Your task to perform on an android device: Search for dell xps on costco, select the first entry, add it to the cart, then select checkout. Image 0: 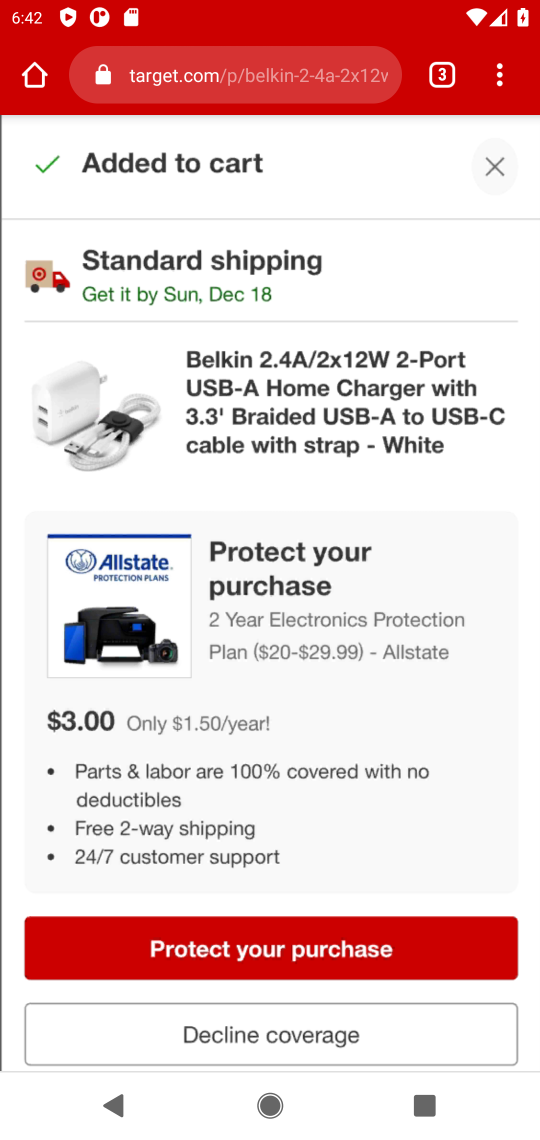
Step 0: click (228, 998)
Your task to perform on an android device: Search for dell xps on costco, select the first entry, add it to the cart, then select checkout. Image 1: 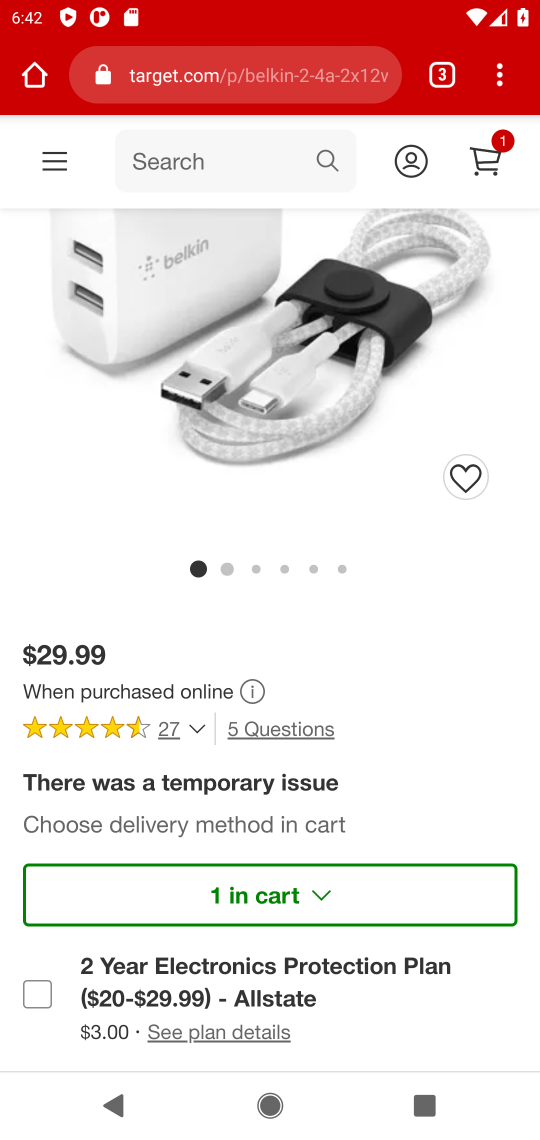
Step 1: press home button
Your task to perform on an android device: Search for dell xps on costco, select the first entry, add it to the cart, then select checkout. Image 2: 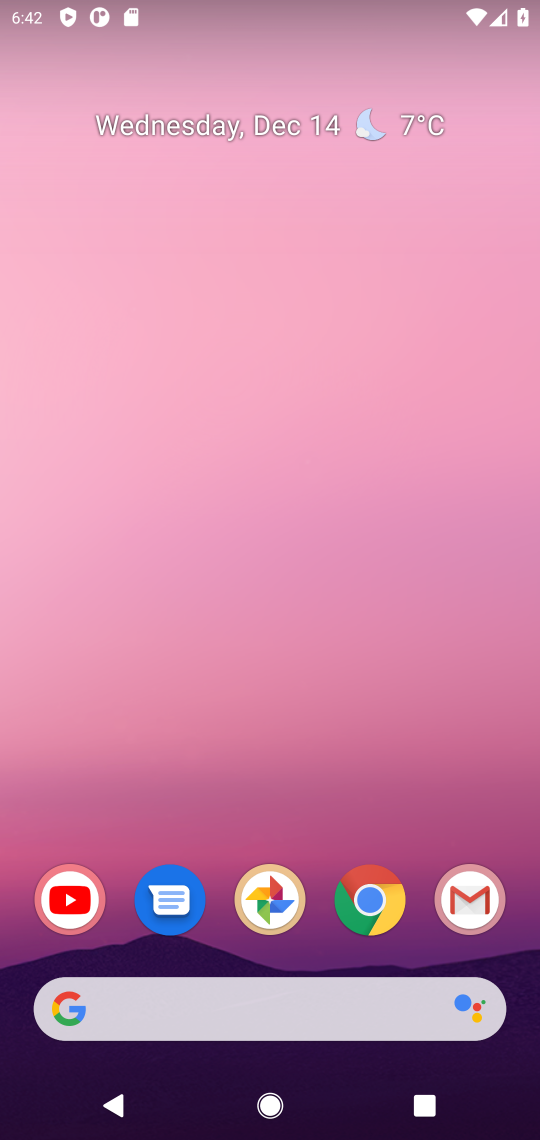
Step 2: click (217, 1019)
Your task to perform on an android device: Search for dell xps on costco, select the first entry, add it to the cart, then select checkout. Image 3: 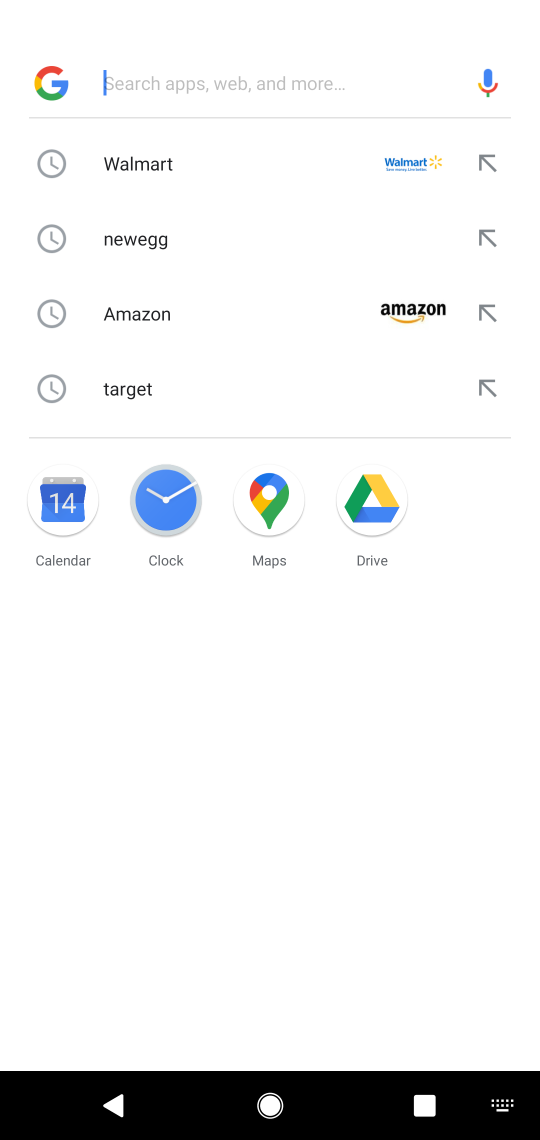
Step 3: type "costco"
Your task to perform on an android device: Search for dell xps on costco, select the first entry, add it to the cart, then select checkout. Image 4: 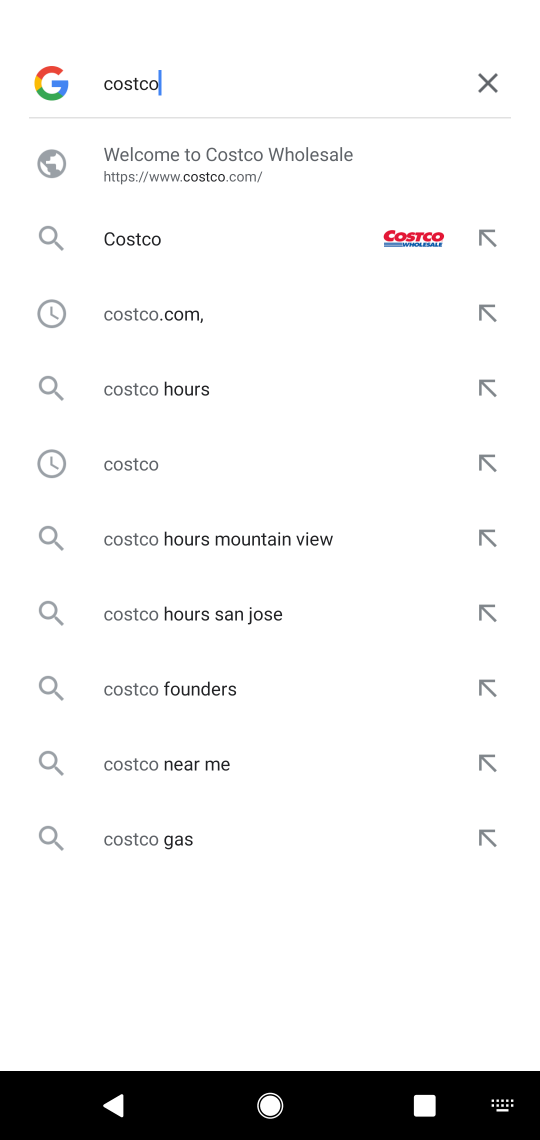
Step 4: click (291, 239)
Your task to perform on an android device: Search for dell xps on costco, select the first entry, add it to the cart, then select checkout. Image 5: 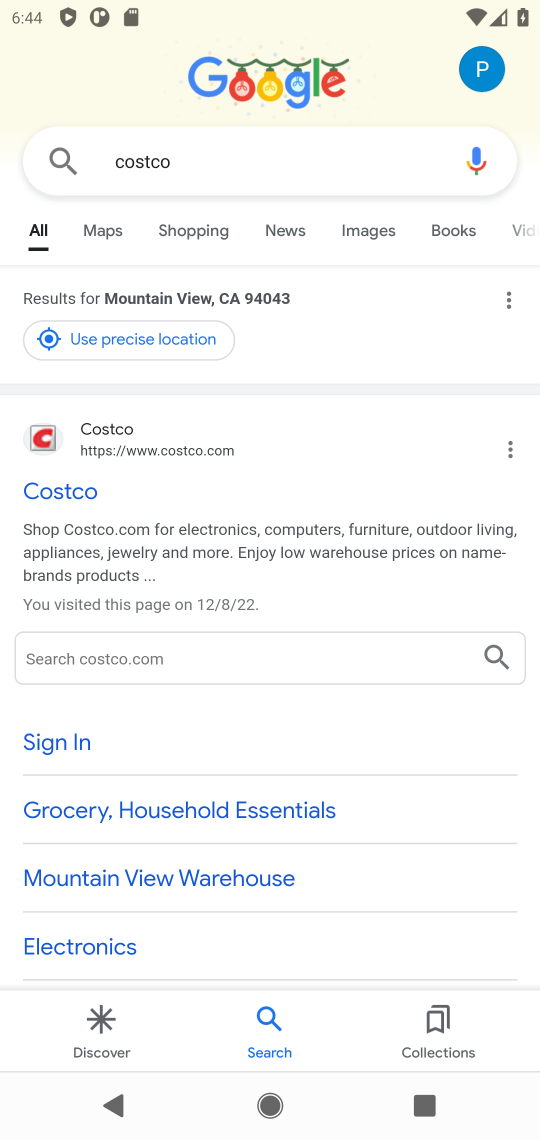
Step 5: click (45, 491)
Your task to perform on an android device: Search for dell xps on costco, select the first entry, add it to the cart, then select checkout. Image 6: 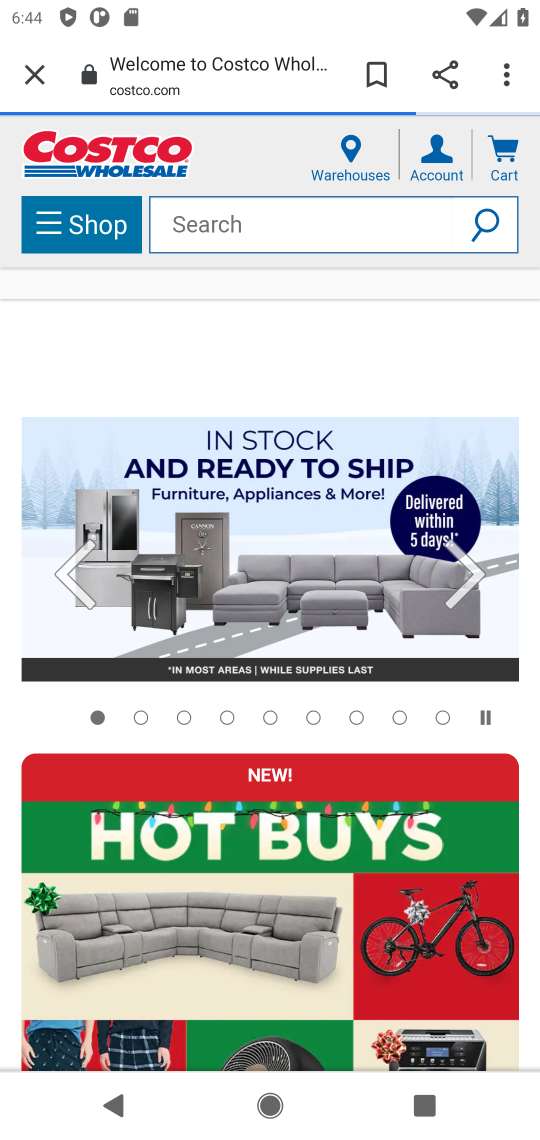
Step 6: click (403, 215)
Your task to perform on an android device: Search for dell xps on costco, select the first entry, add it to the cart, then select checkout. Image 7: 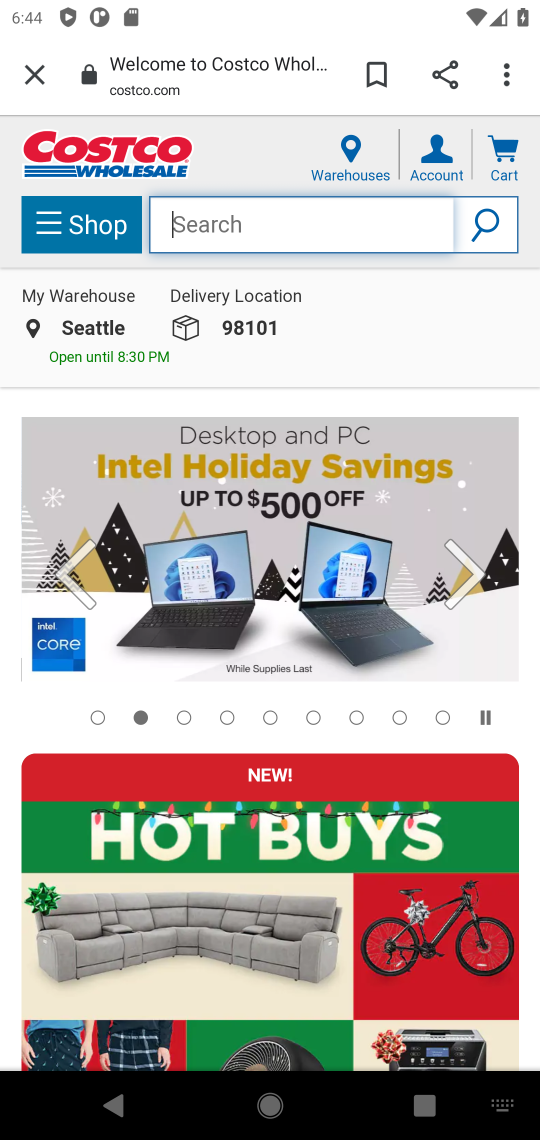
Step 7: type "dell xps"
Your task to perform on an android device: Search for dell xps on costco, select the first entry, add it to the cart, then select checkout. Image 8: 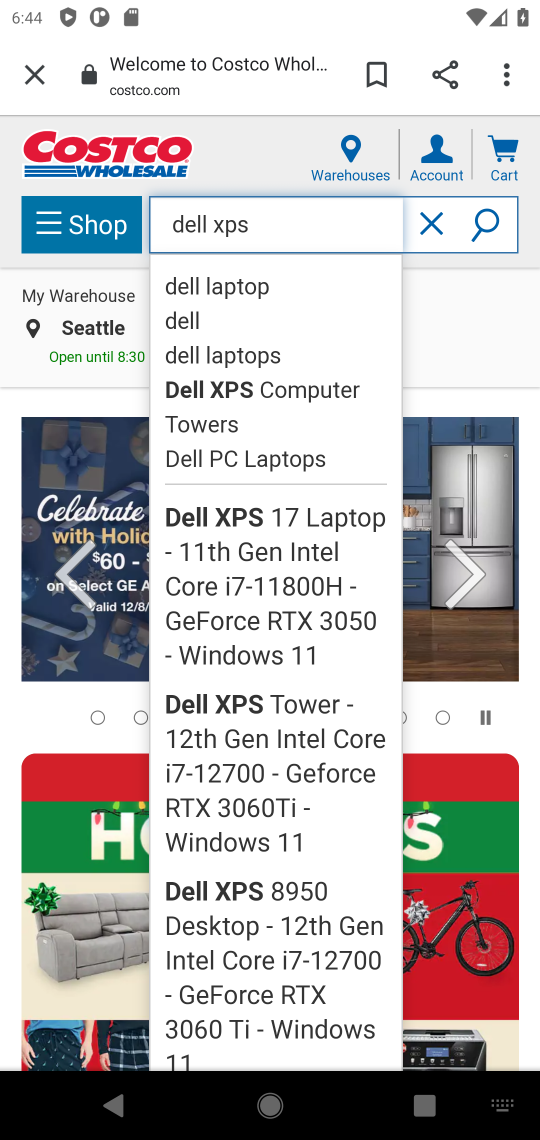
Step 8: click (493, 226)
Your task to perform on an android device: Search for dell xps on costco, select the first entry, add it to the cart, then select checkout. Image 9: 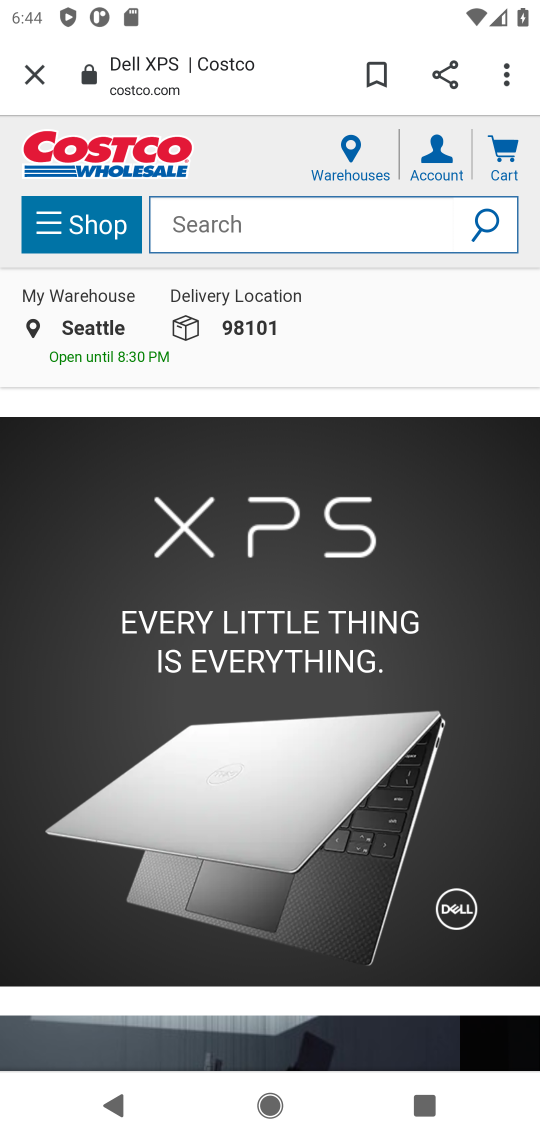
Step 9: drag from (319, 941) to (318, 673)
Your task to perform on an android device: Search for dell xps on costco, select the first entry, add it to the cart, then select checkout. Image 10: 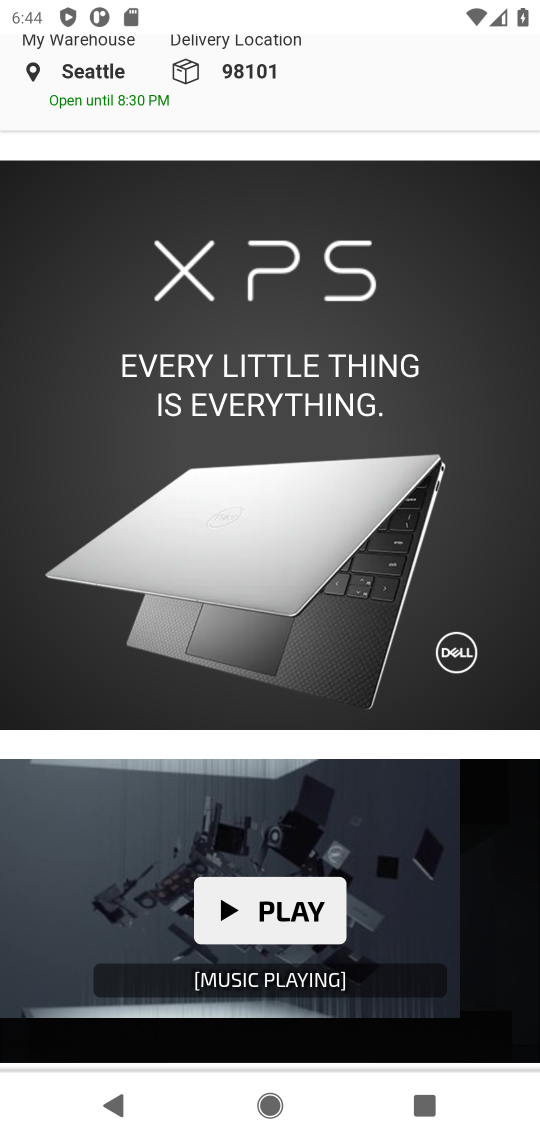
Step 10: drag from (323, 764) to (323, 1098)
Your task to perform on an android device: Search for dell xps on costco, select the first entry, add it to the cart, then select checkout. Image 11: 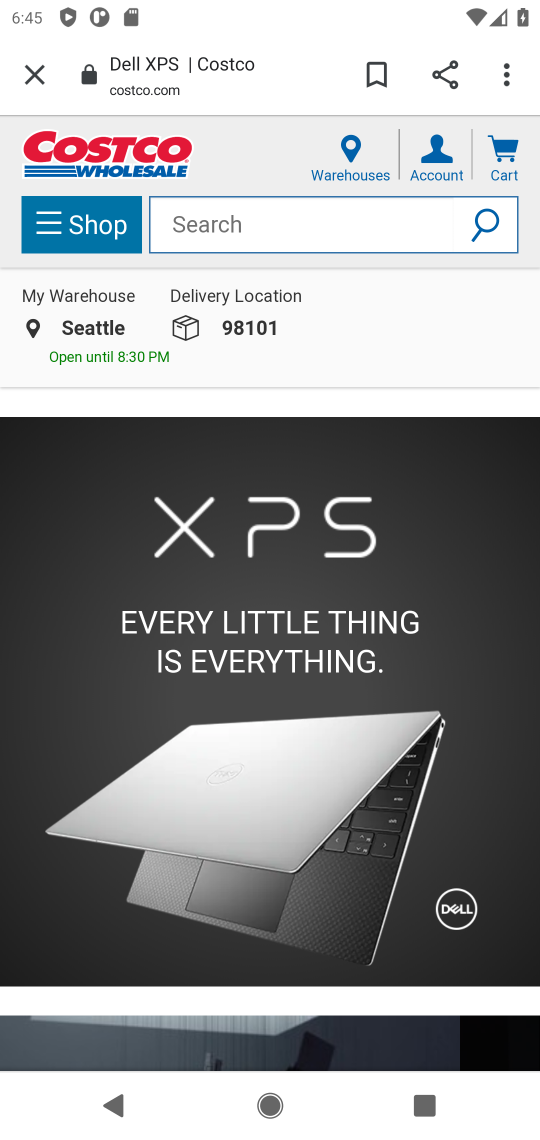
Step 11: drag from (325, 875) to (358, 367)
Your task to perform on an android device: Search for dell xps on costco, select the first entry, add it to the cart, then select checkout. Image 12: 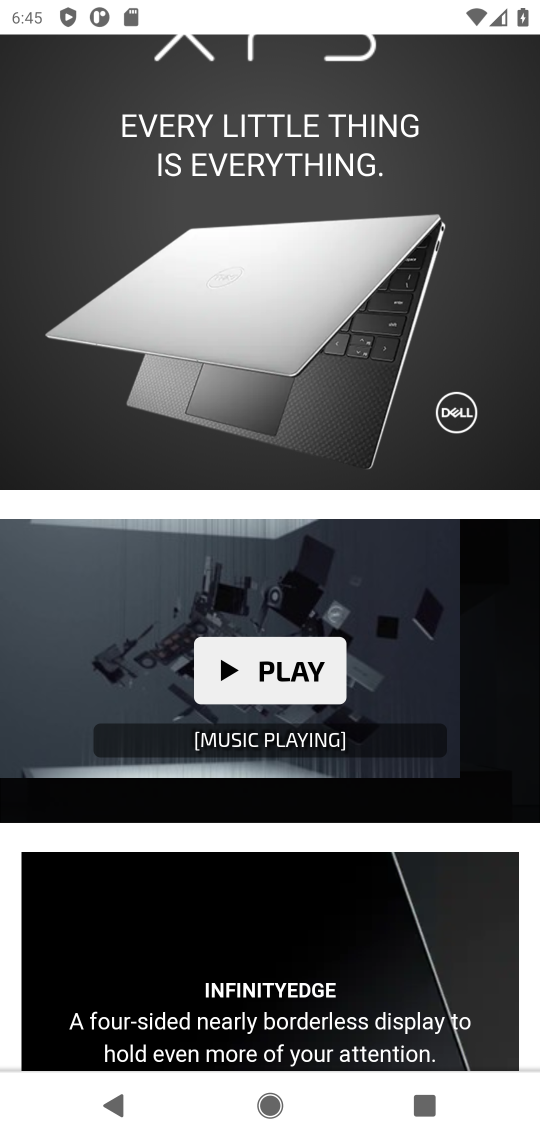
Step 12: drag from (228, 835) to (319, 239)
Your task to perform on an android device: Search for dell xps on costco, select the first entry, add it to the cart, then select checkout. Image 13: 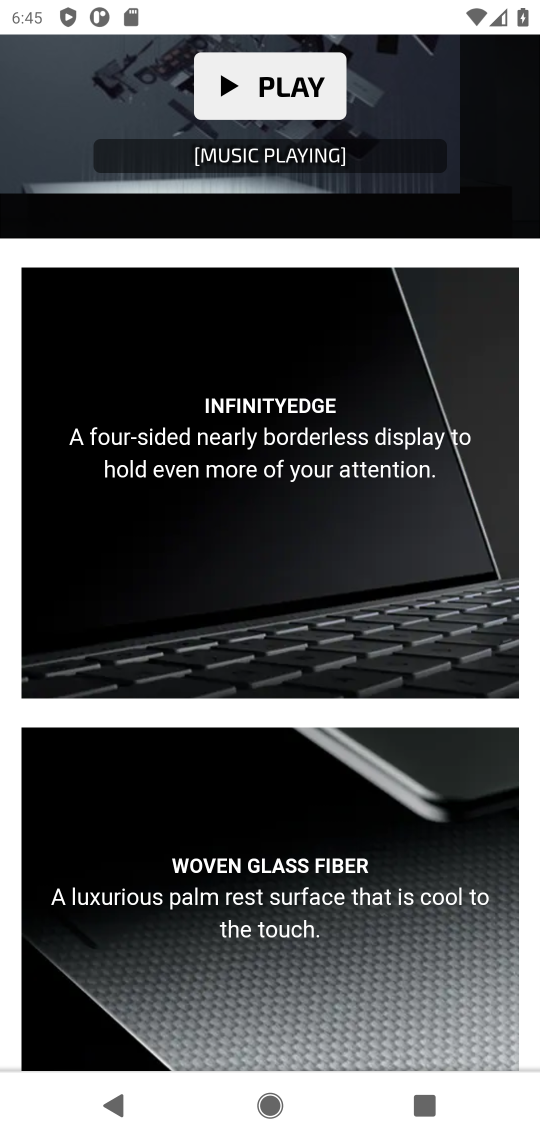
Step 13: drag from (265, 744) to (275, 401)
Your task to perform on an android device: Search for dell xps on costco, select the first entry, add it to the cart, then select checkout. Image 14: 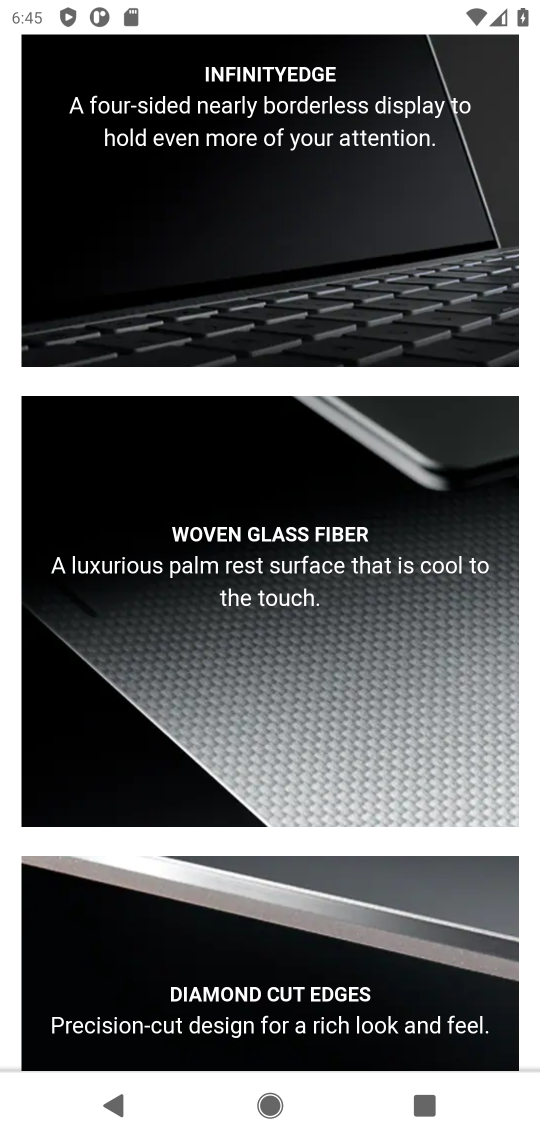
Step 14: drag from (272, 820) to (279, 451)
Your task to perform on an android device: Search for dell xps on costco, select the first entry, add it to the cart, then select checkout. Image 15: 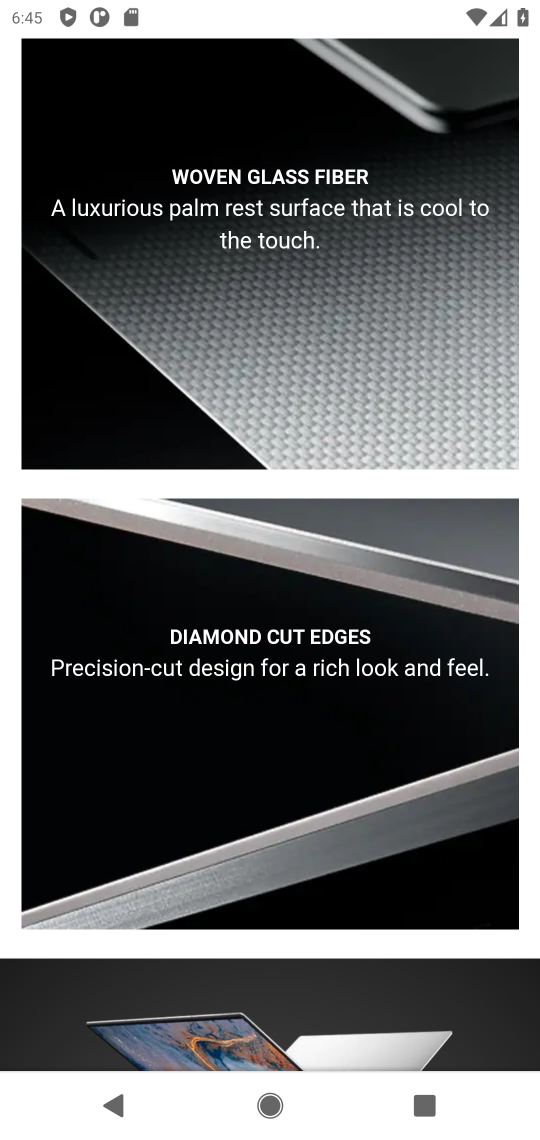
Step 15: drag from (241, 879) to (302, 344)
Your task to perform on an android device: Search for dell xps on costco, select the first entry, add it to the cart, then select checkout. Image 16: 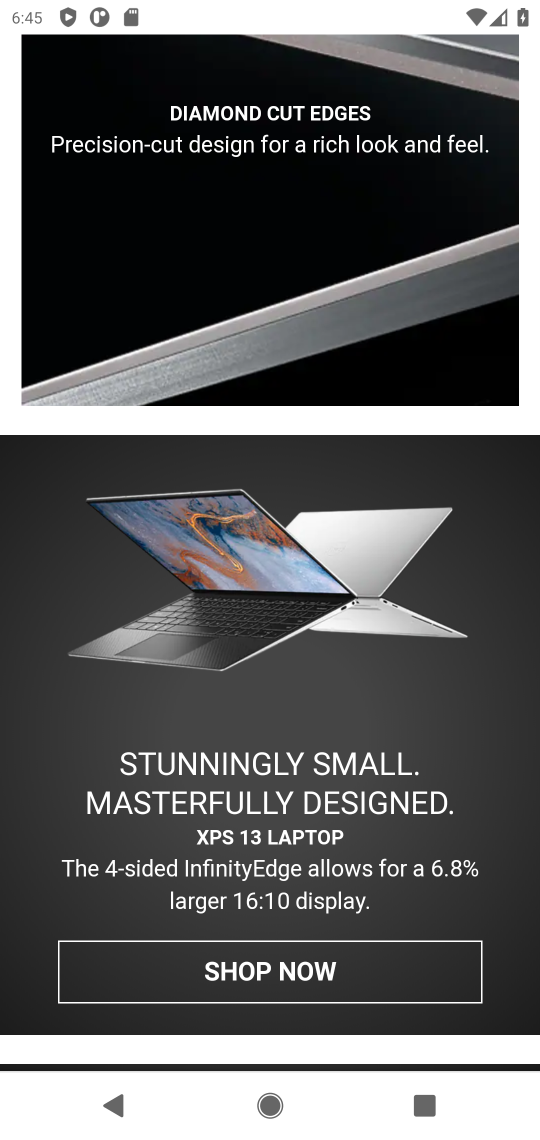
Step 16: drag from (305, 577) to (351, 319)
Your task to perform on an android device: Search for dell xps on costco, select the first entry, add it to the cart, then select checkout. Image 17: 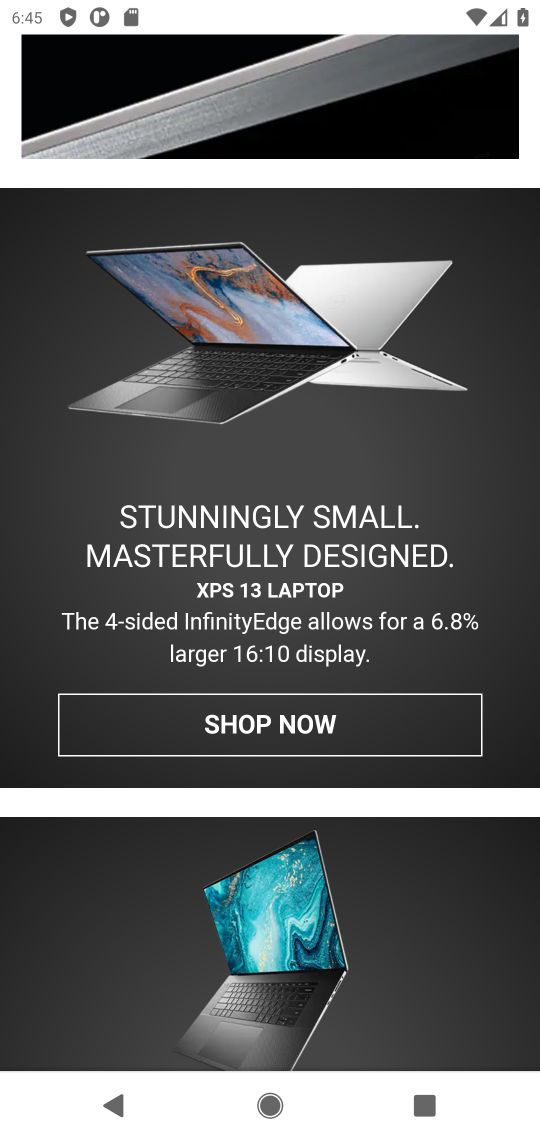
Step 17: click (264, 721)
Your task to perform on an android device: Search for dell xps on costco, select the first entry, add it to the cart, then select checkout. Image 18: 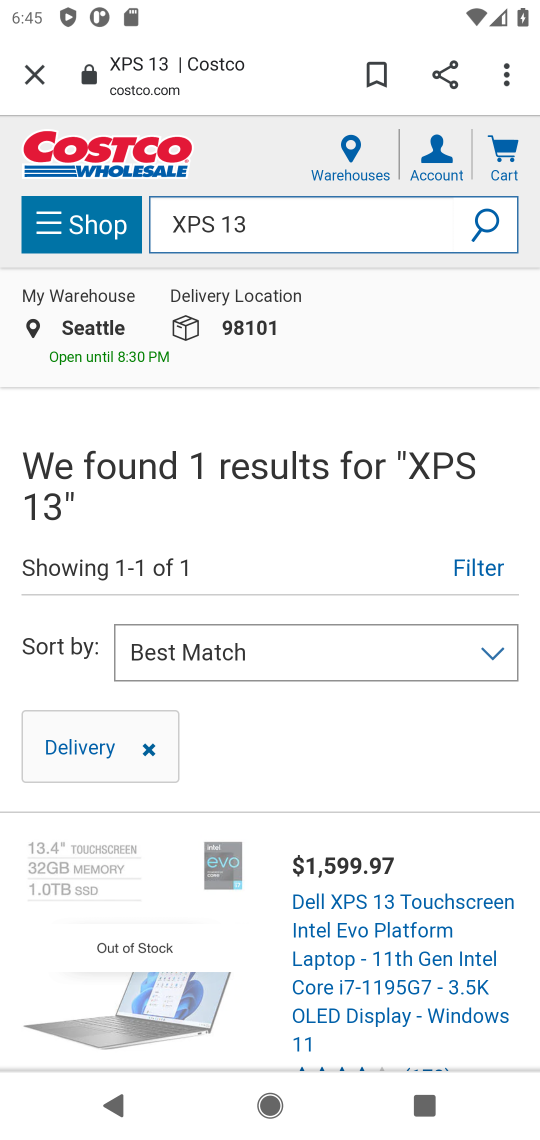
Step 18: drag from (265, 706) to (345, 429)
Your task to perform on an android device: Search for dell xps on costco, select the first entry, add it to the cart, then select checkout. Image 19: 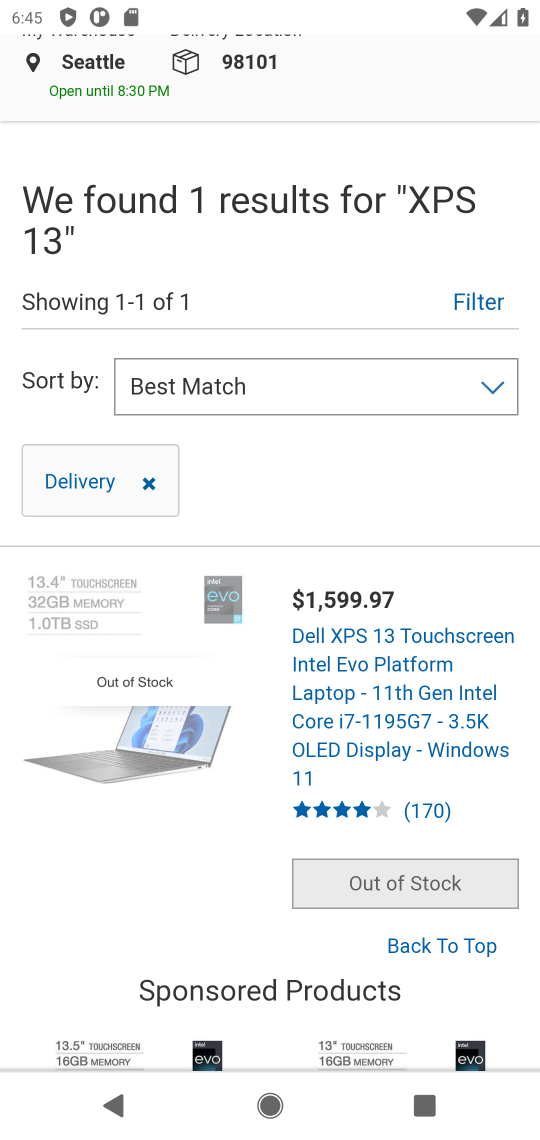
Step 19: click (470, 394)
Your task to perform on an android device: Search for dell xps on costco, select the first entry, add it to the cart, then select checkout. Image 20: 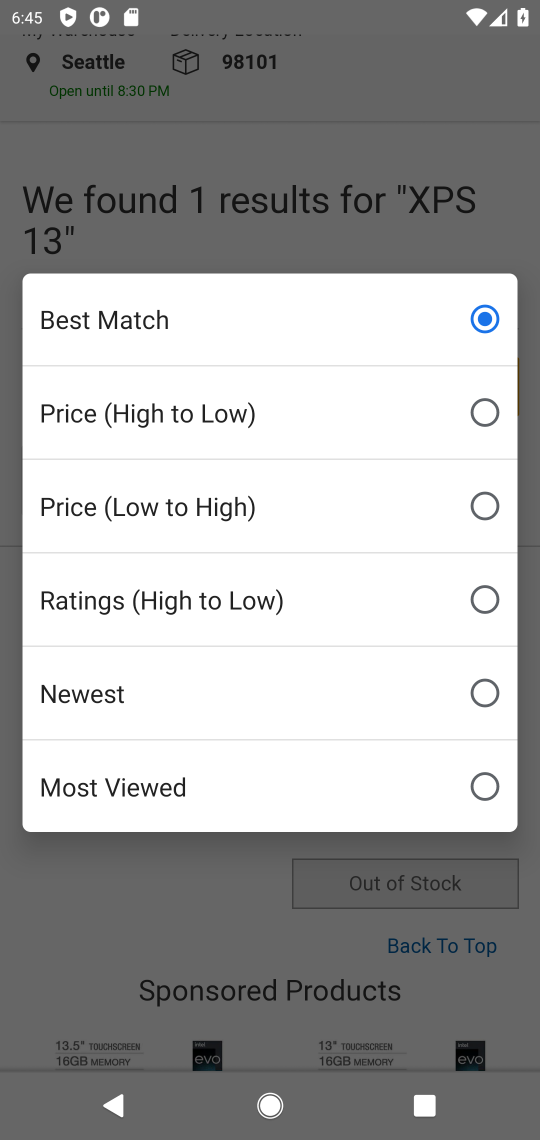
Step 20: click (446, 214)
Your task to perform on an android device: Search for dell xps on costco, select the first entry, add it to the cart, then select checkout. Image 21: 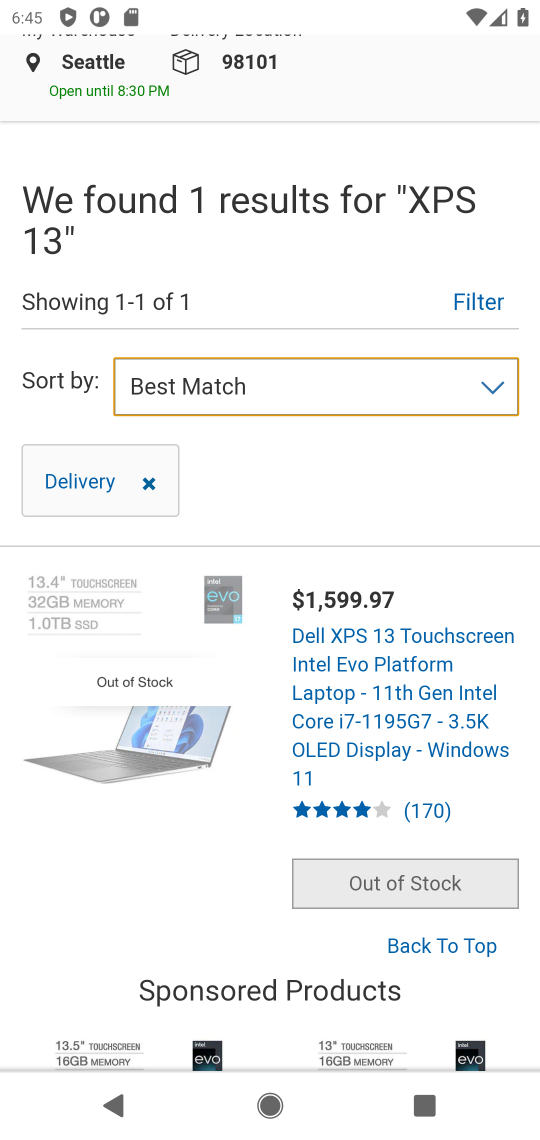
Step 21: task complete